Your task to perform on an android device: Open sound settings Image 0: 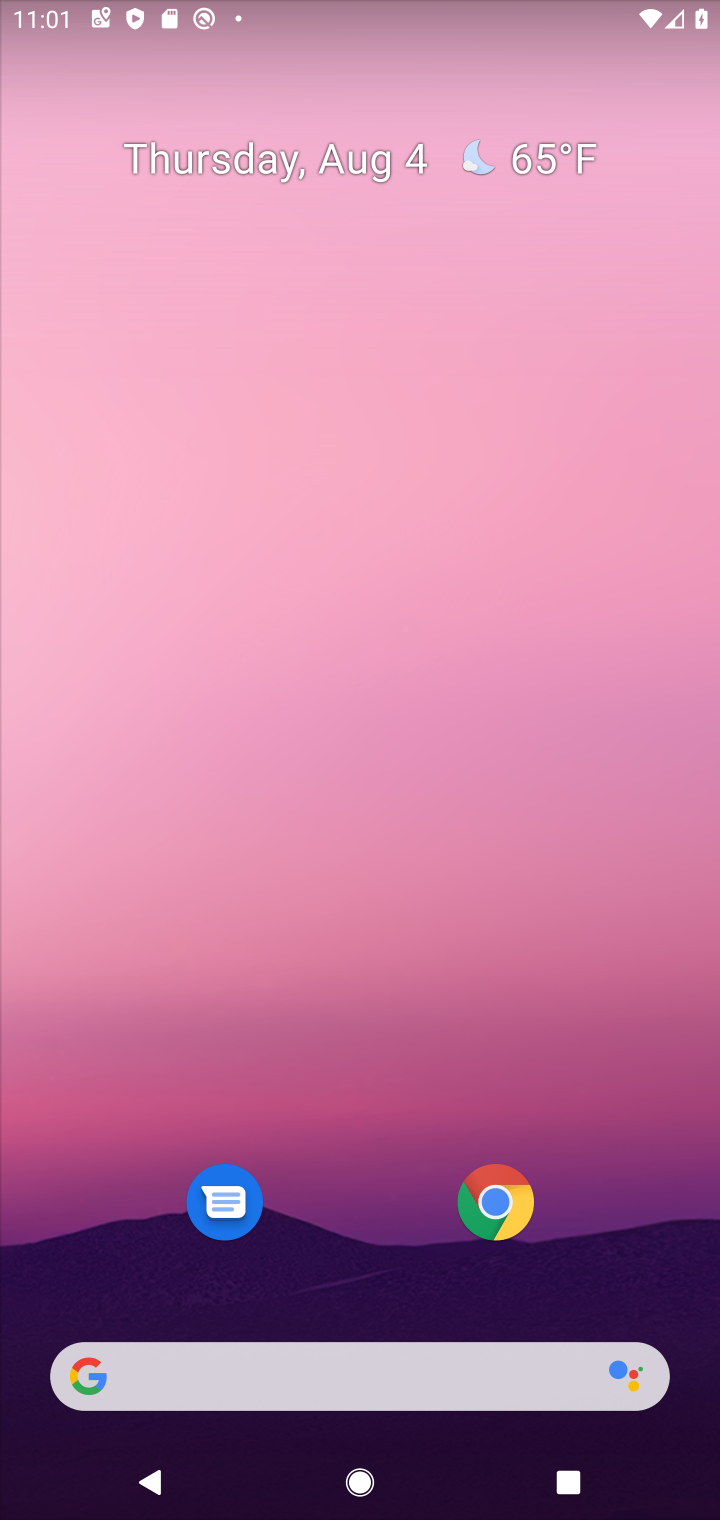
Step 0: drag from (401, 732) to (409, 36)
Your task to perform on an android device: Open sound settings Image 1: 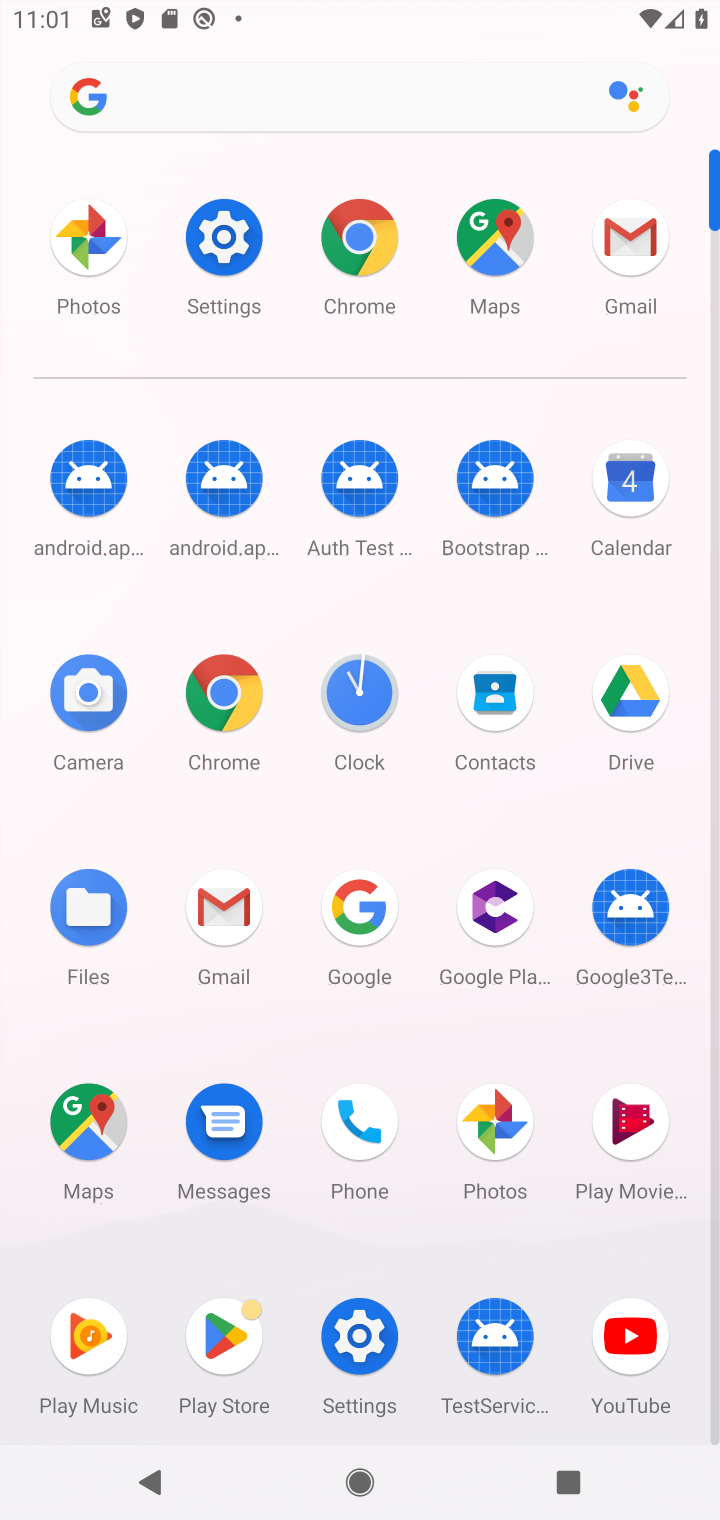
Step 1: click (185, 269)
Your task to perform on an android device: Open sound settings Image 2: 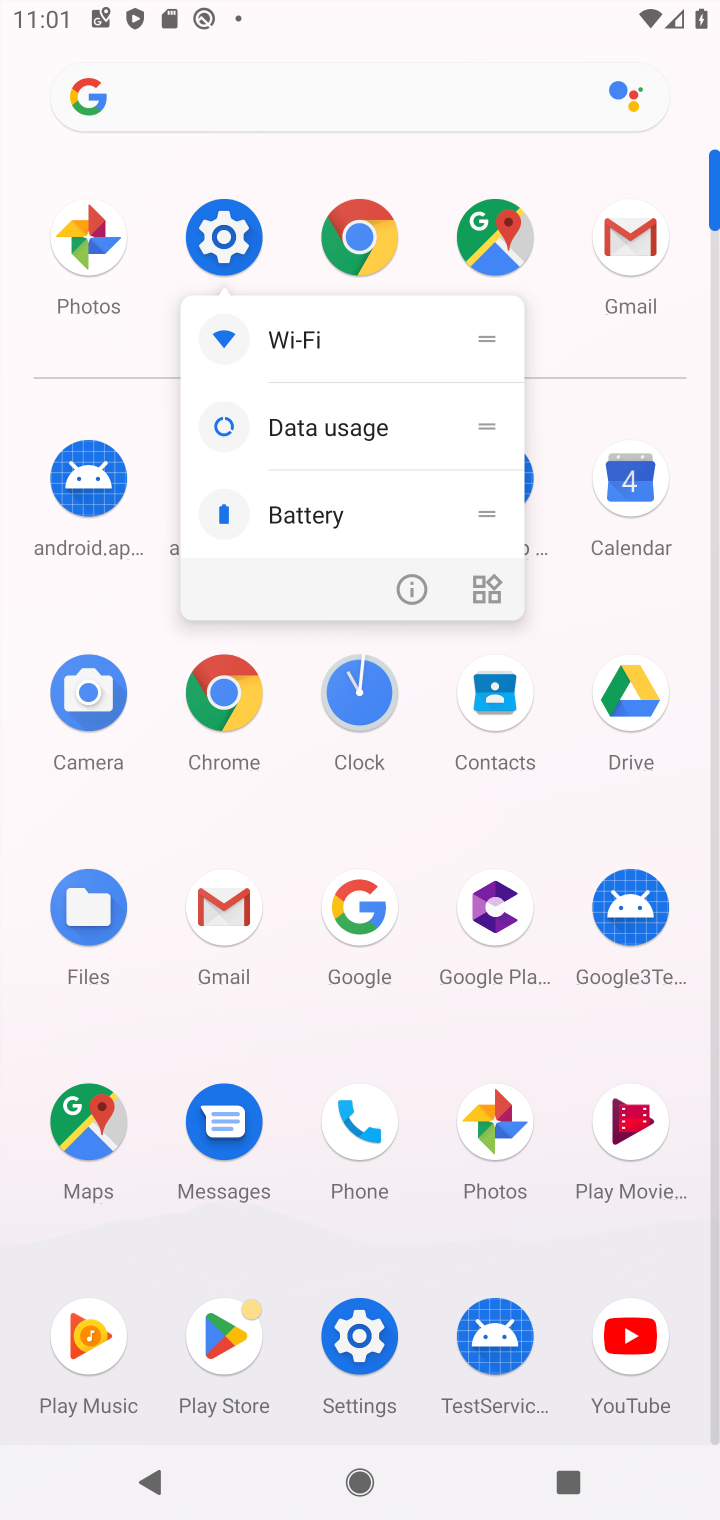
Step 2: click (216, 221)
Your task to perform on an android device: Open sound settings Image 3: 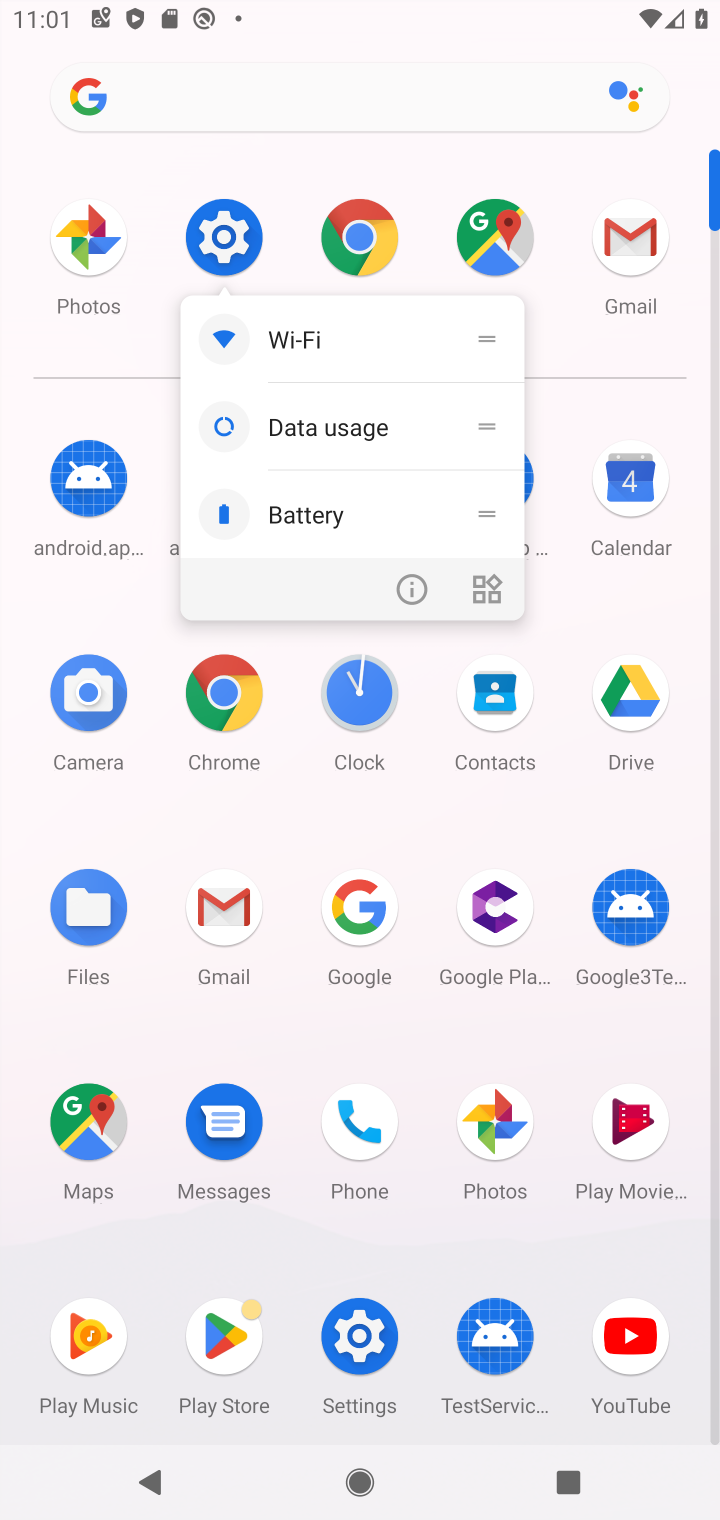
Step 3: click (224, 218)
Your task to perform on an android device: Open sound settings Image 4: 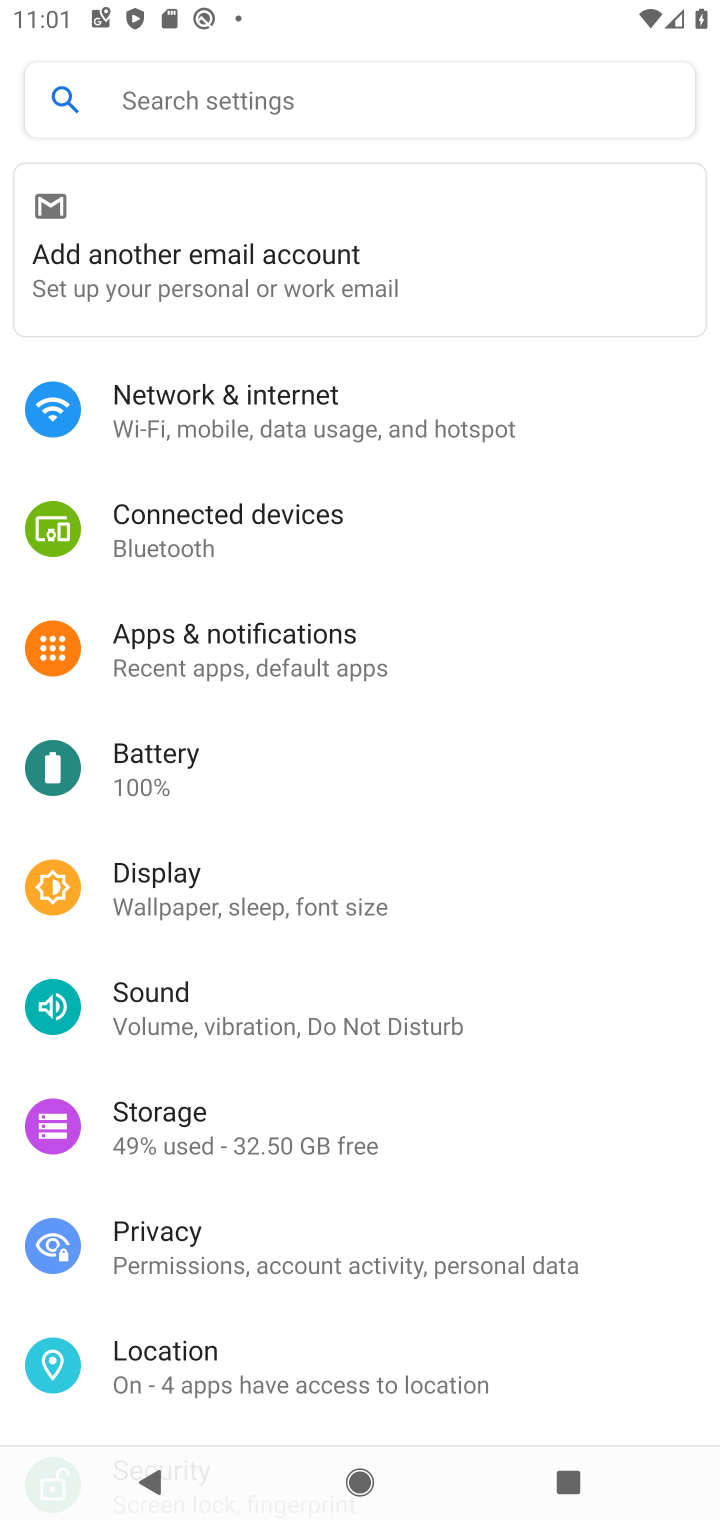
Step 4: click (171, 1005)
Your task to perform on an android device: Open sound settings Image 5: 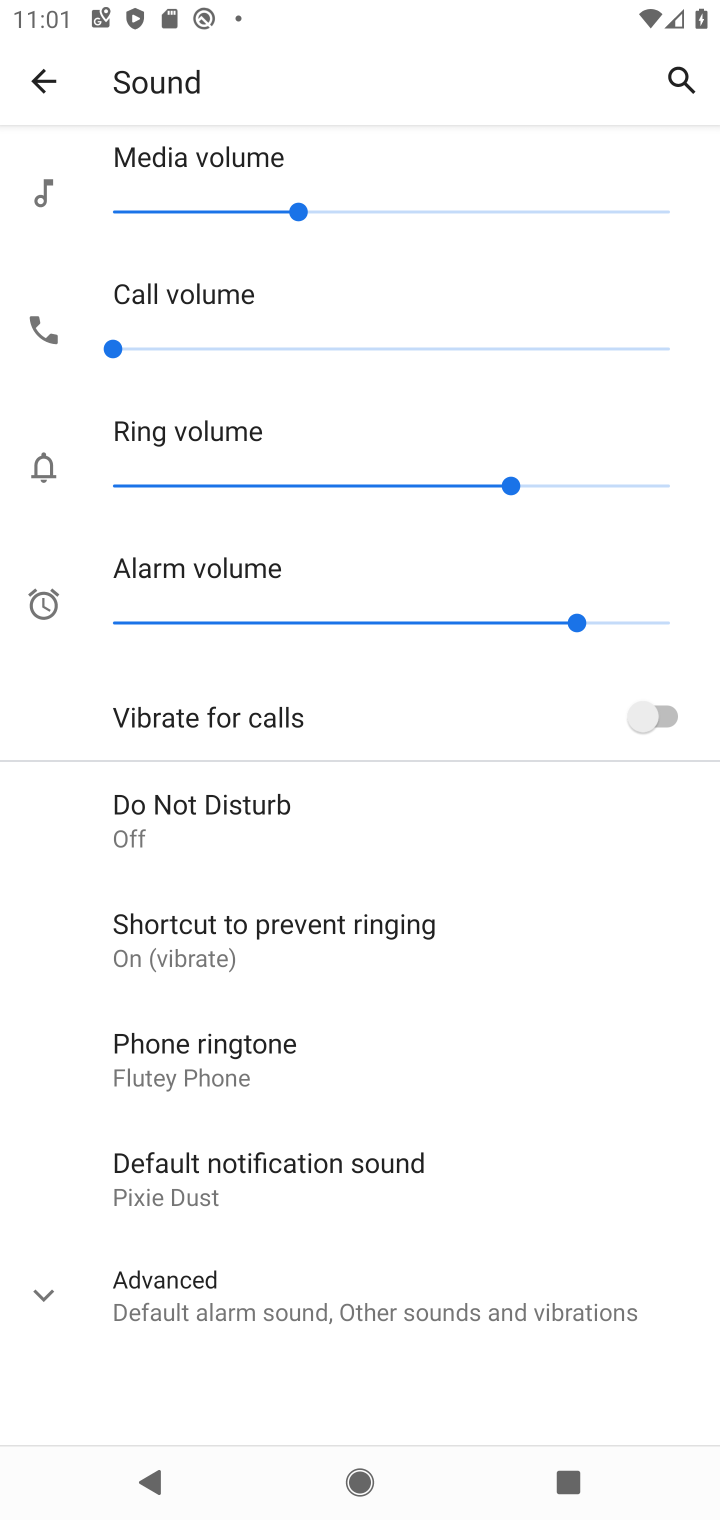
Step 5: task complete